Your task to perform on an android device: manage bookmarks in the chrome app Image 0: 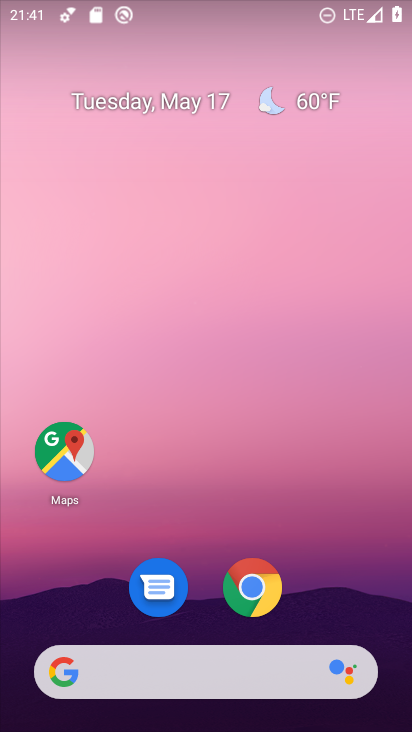
Step 0: drag from (190, 630) to (192, 198)
Your task to perform on an android device: manage bookmarks in the chrome app Image 1: 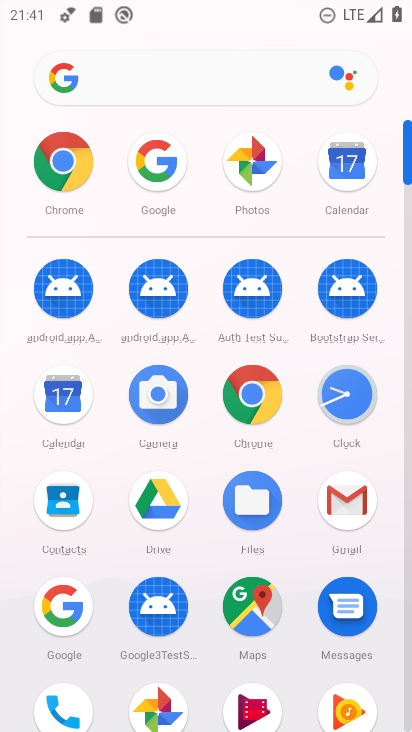
Step 1: click (257, 411)
Your task to perform on an android device: manage bookmarks in the chrome app Image 2: 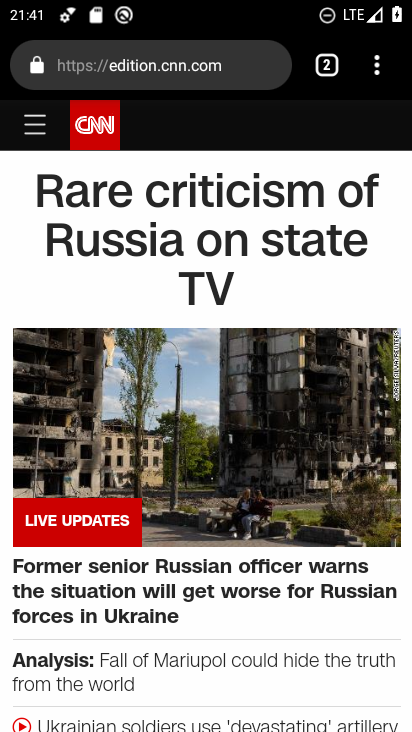
Step 2: click (378, 68)
Your task to perform on an android device: manage bookmarks in the chrome app Image 3: 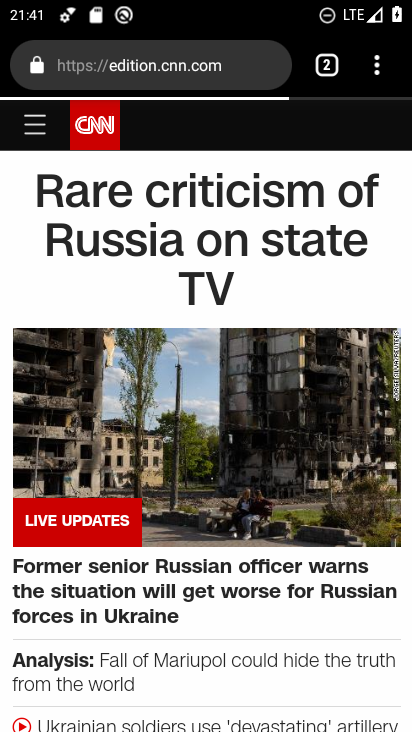
Step 3: click (377, 72)
Your task to perform on an android device: manage bookmarks in the chrome app Image 4: 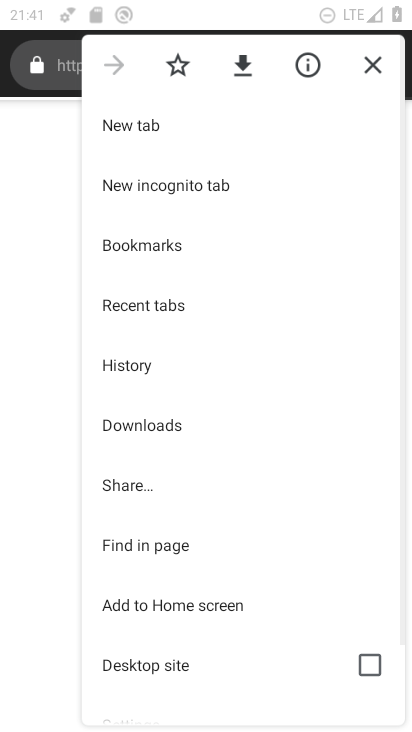
Step 4: click (159, 257)
Your task to perform on an android device: manage bookmarks in the chrome app Image 5: 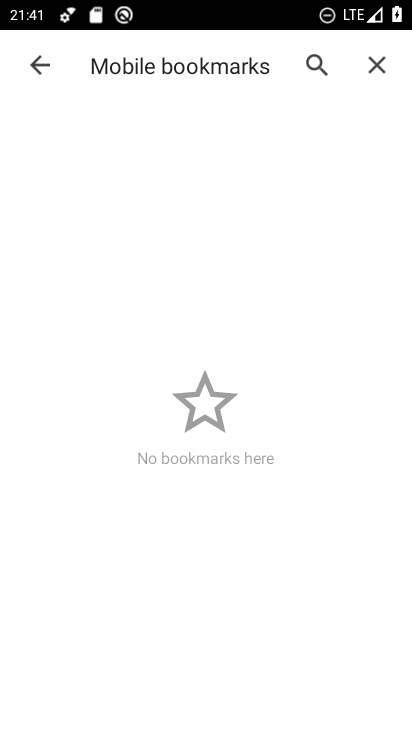
Step 5: task complete